Your task to perform on an android device: Show me recent news Image 0: 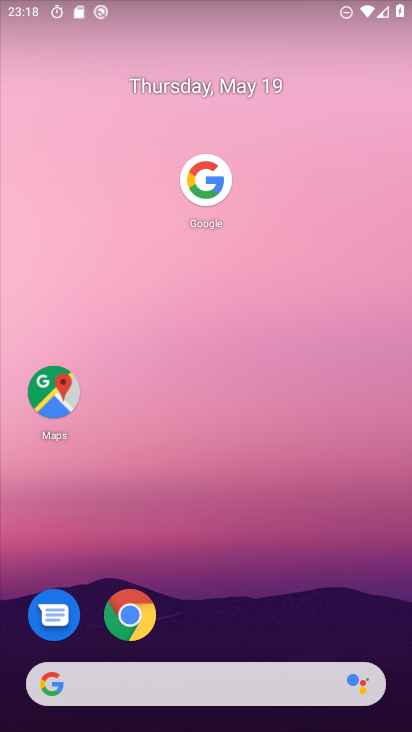
Step 0: click (207, 174)
Your task to perform on an android device: Show me recent news Image 1: 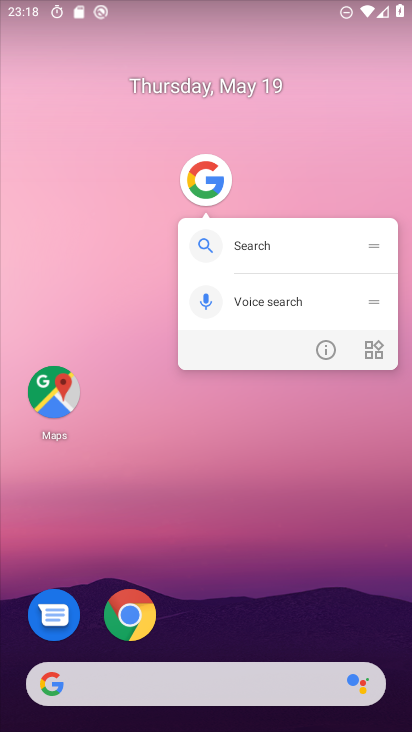
Step 1: click (208, 178)
Your task to perform on an android device: Show me recent news Image 2: 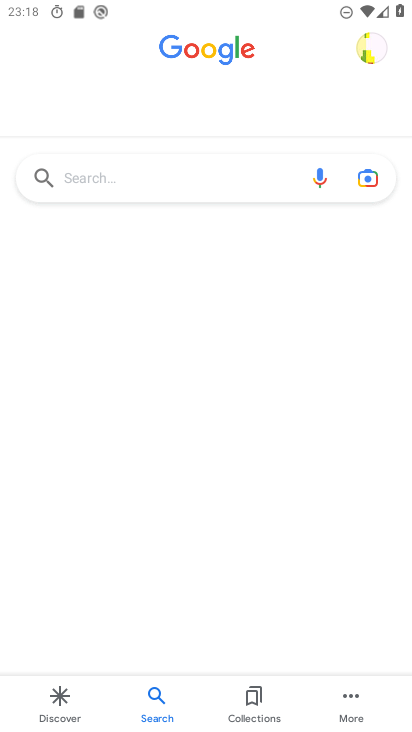
Step 2: click (147, 174)
Your task to perform on an android device: Show me recent news Image 3: 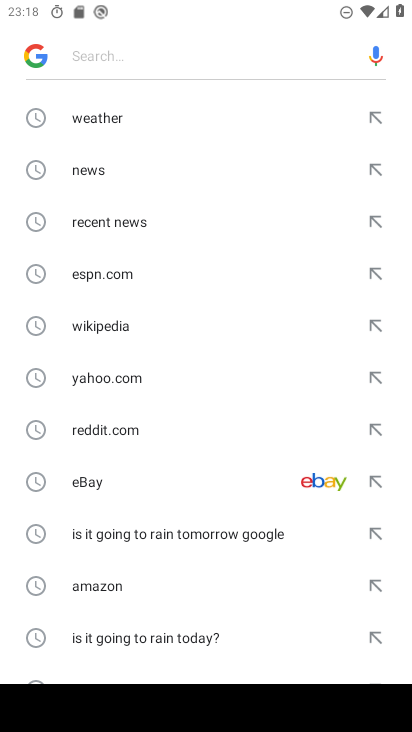
Step 3: click (133, 221)
Your task to perform on an android device: Show me recent news Image 4: 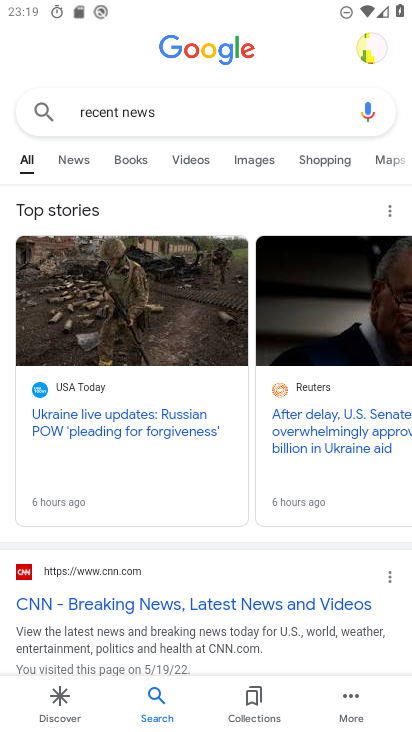
Step 4: task complete